Your task to perform on an android device: empty trash in google photos Image 0: 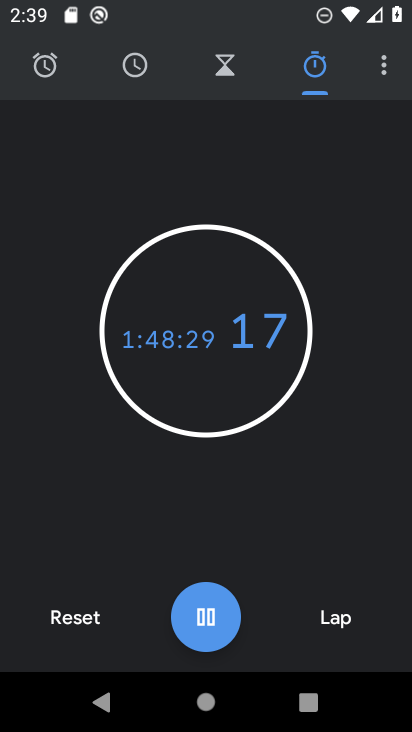
Step 0: press home button
Your task to perform on an android device: empty trash in google photos Image 1: 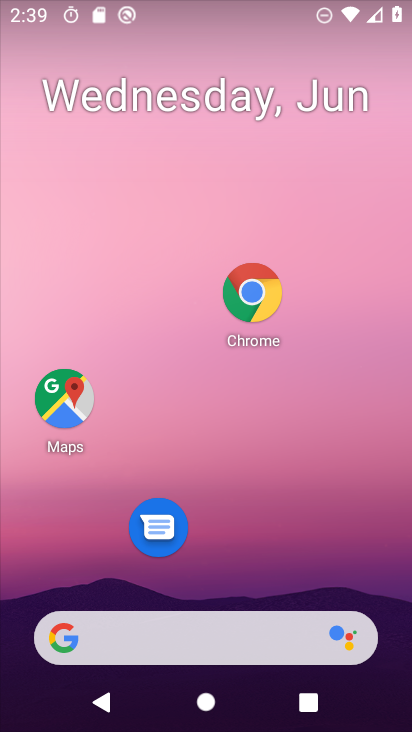
Step 1: drag from (211, 495) to (213, 271)
Your task to perform on an android device: empty trash in google photos Image 2: 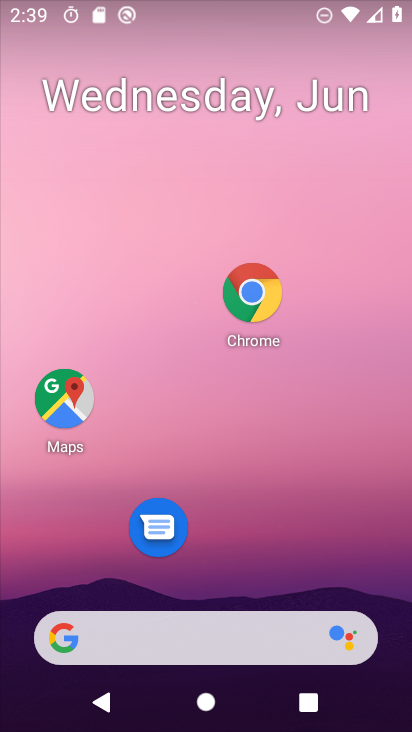
Step 2: drag from (287, 534) to (273, 256)
Your task to perform on an android device: empty trash in google photos Image 3: 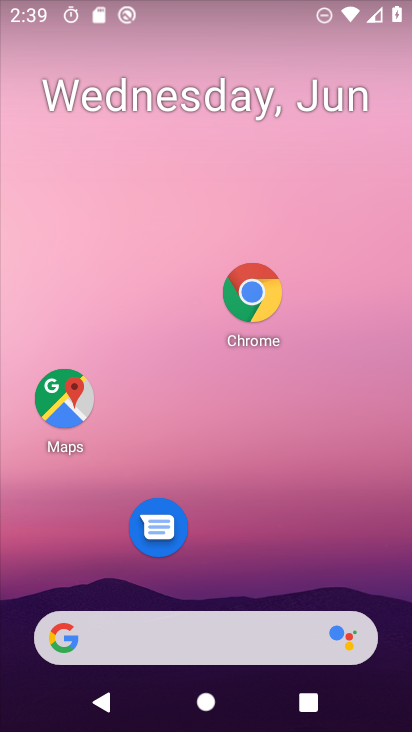
Step 3: drag from (289, 456) to (289, 148)
Your task to perform on an android device: empty trash in google photos Image 4: 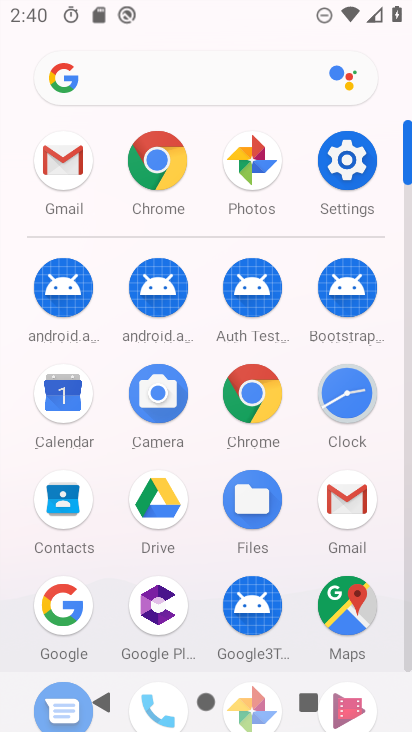
Step 4: drag from (266, 428) to (269, 245)
Your task to perform on an android device: empty trash in google photos Image 5: 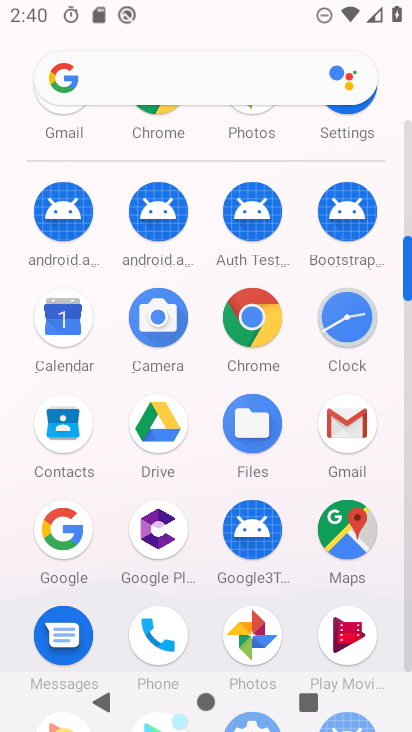
Step 5: click (284, 167)
Your task to perform on an android device: empty trash in google photos Image 6: 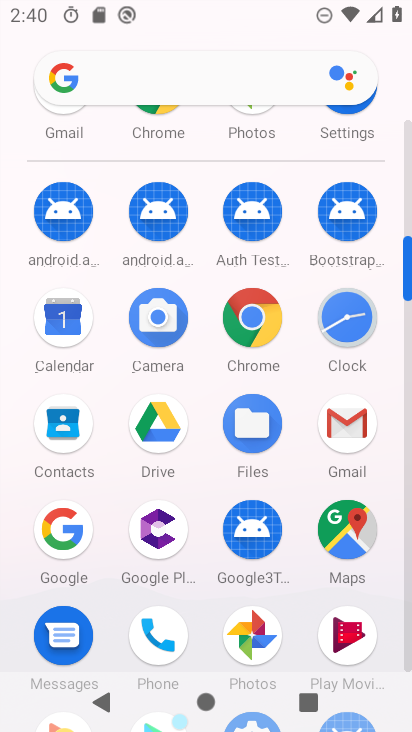
Step 6: drag from (191, 486) to (170, 153)
Your task to perform on an android device: empty trash in google photos Image 7: 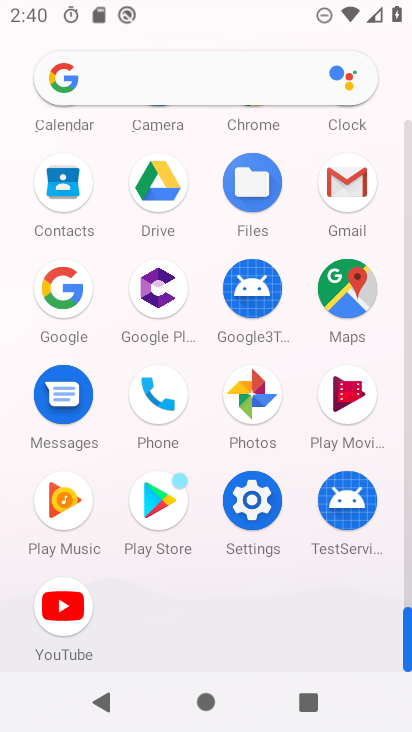
Step 7: click (254, 414)
Your task to perform on an android device: empty trash in google photos Image 8: 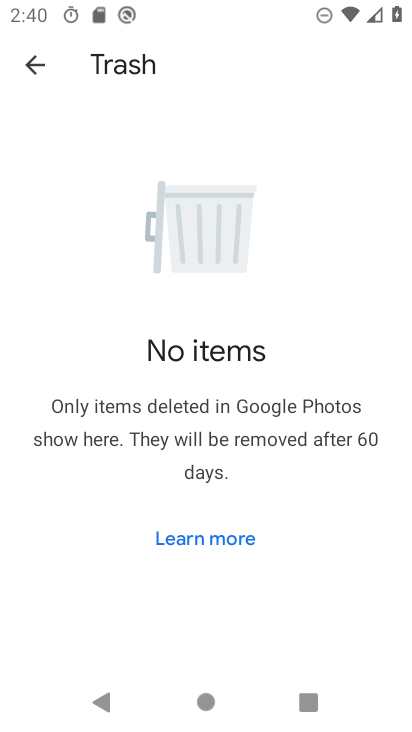
Step 8: task complete